Your task to perform on an android device: turn on airplane mode Image 0: 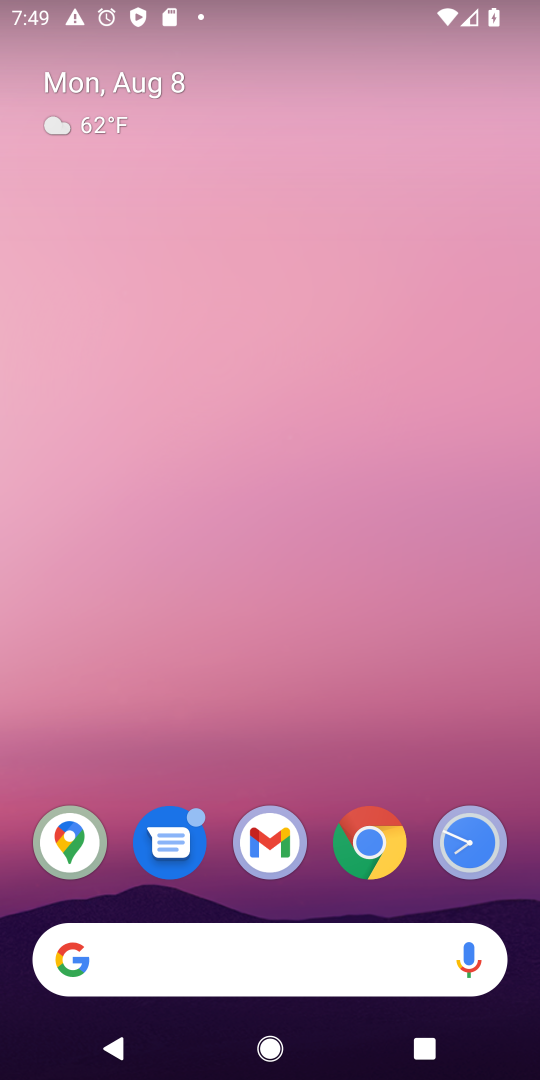
Step 0: click (232, 838)
Your task to perform on an android device: turn on airplane mode Image 1: 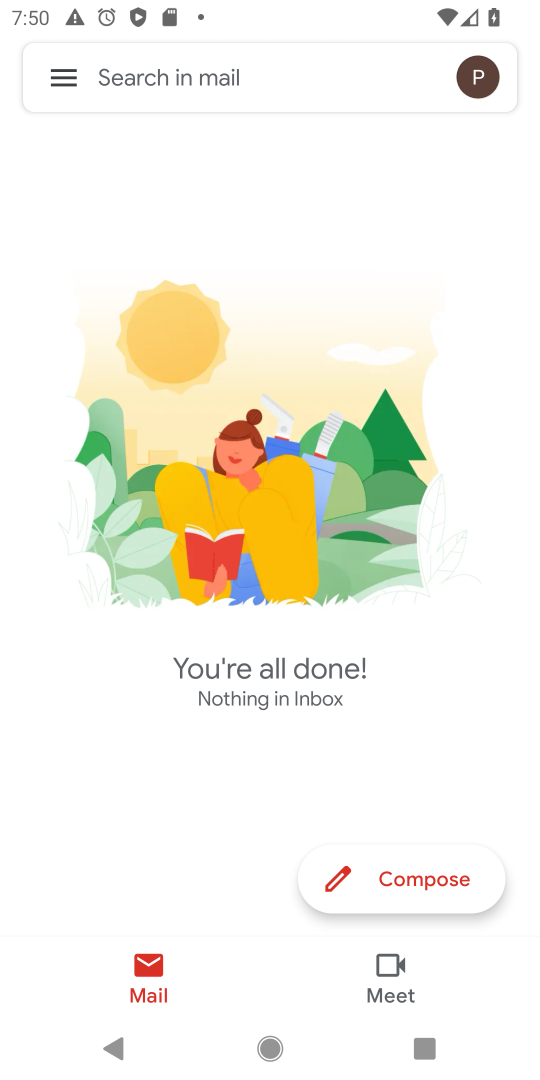
Step 1: click (58, 87)
Your task to perform on an android device: turn on airplane mode Image 2: 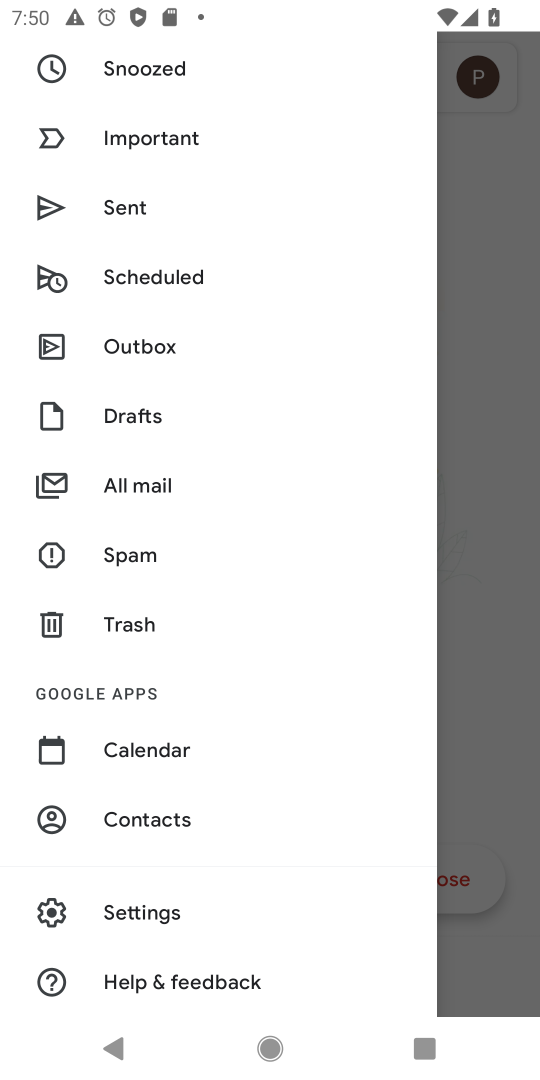
Step 2: press home button
Your task to perform on an android device: turn on airplane mode Image 3: 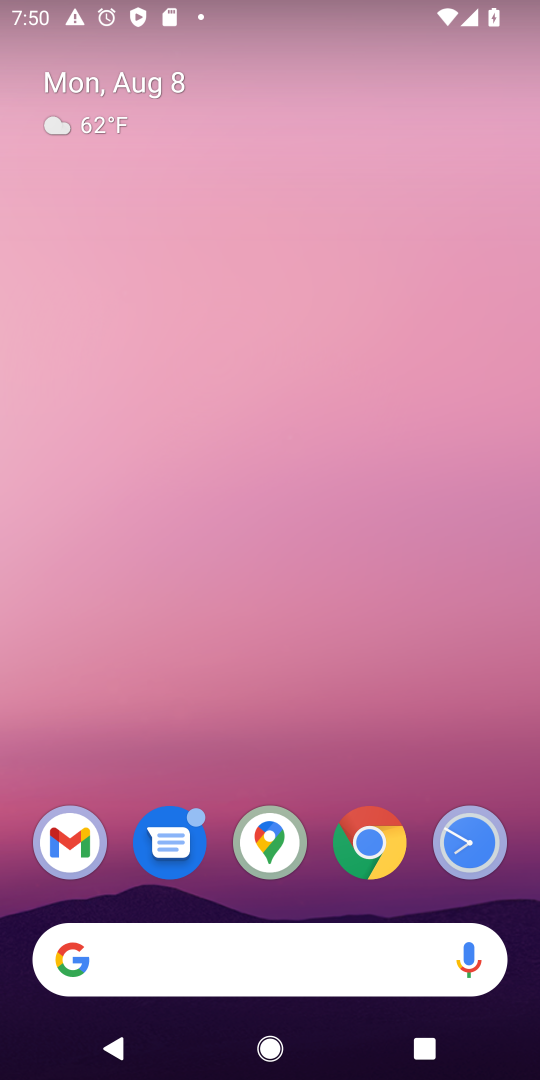
Step 3: drag from (497, 944) to (381, 158)
Your task to perform on an android device: turn on airplane mode Image 4: 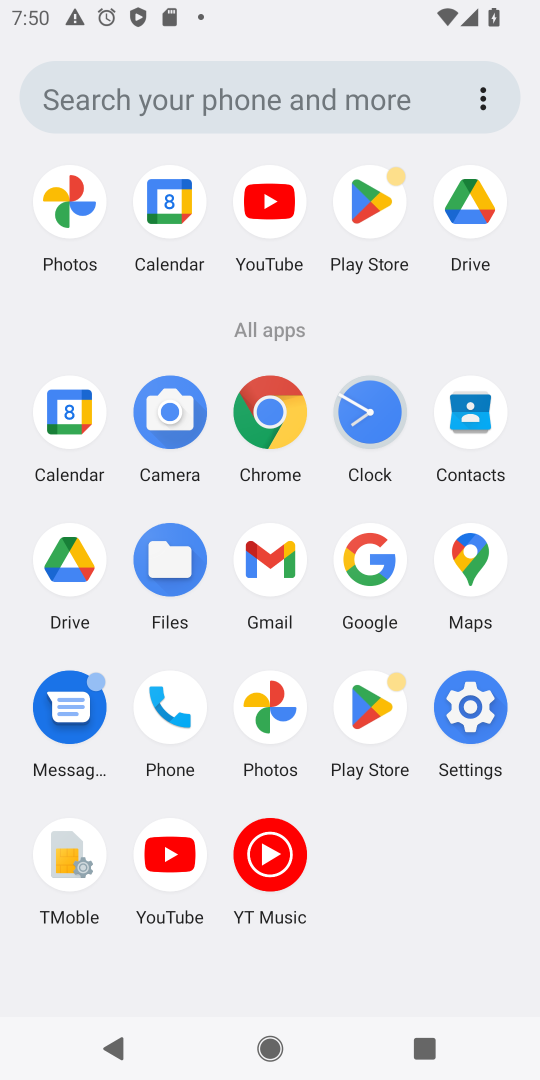
Step 4: click (488, 707)
Your task to perform on an android device: turn on airplane mode Image 5: 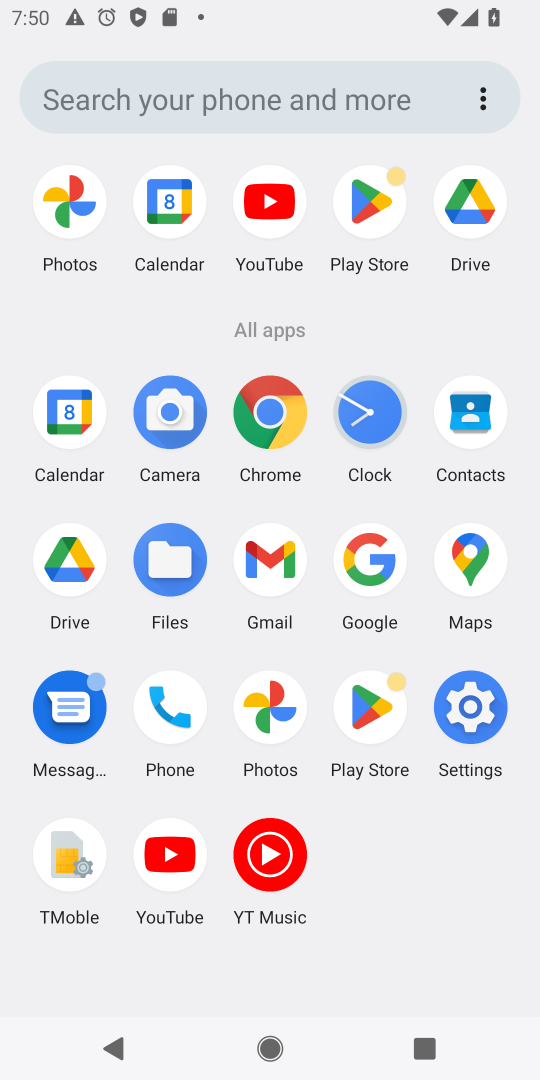
Step 5: click (484, 705)
Your task to perform on an android device: turn on airplane mode Image 6: 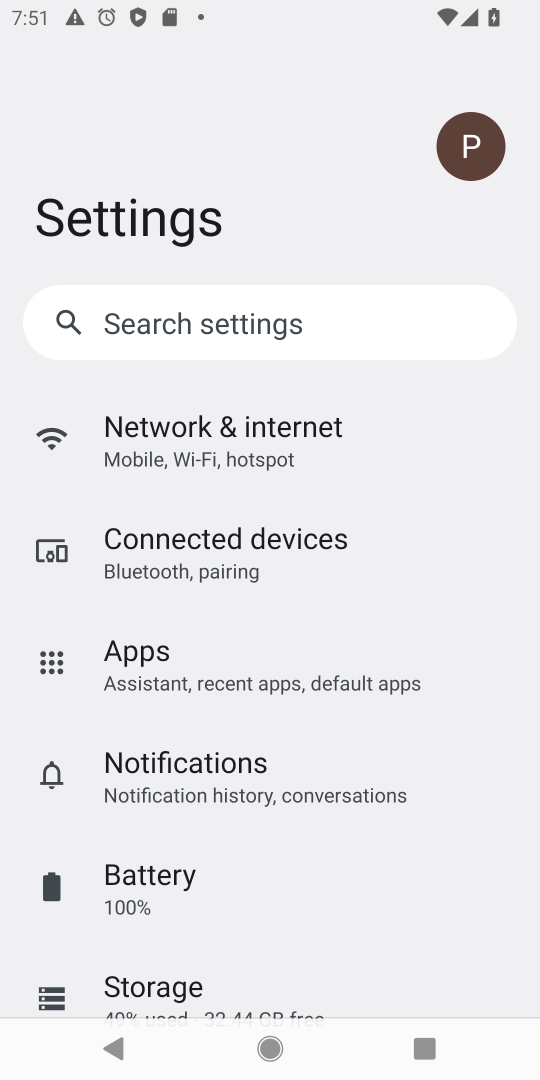
Step 6: click (234, 440)
Your task to perform on an android device: turn on airplane mode Image 7: 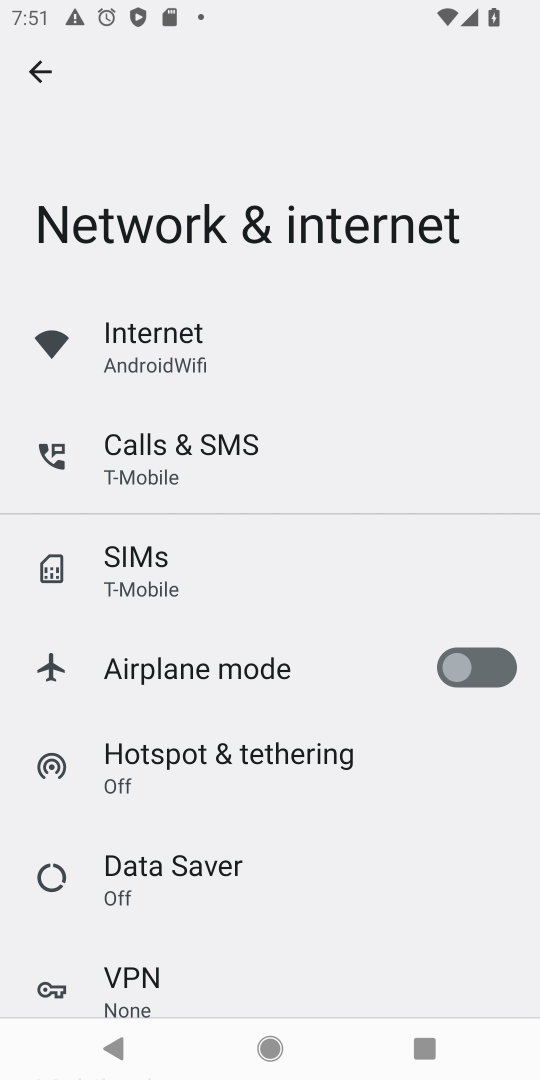
Step 7: click (119, 665)
Your task to perform on an android device: turn on airplane mode Image 8: 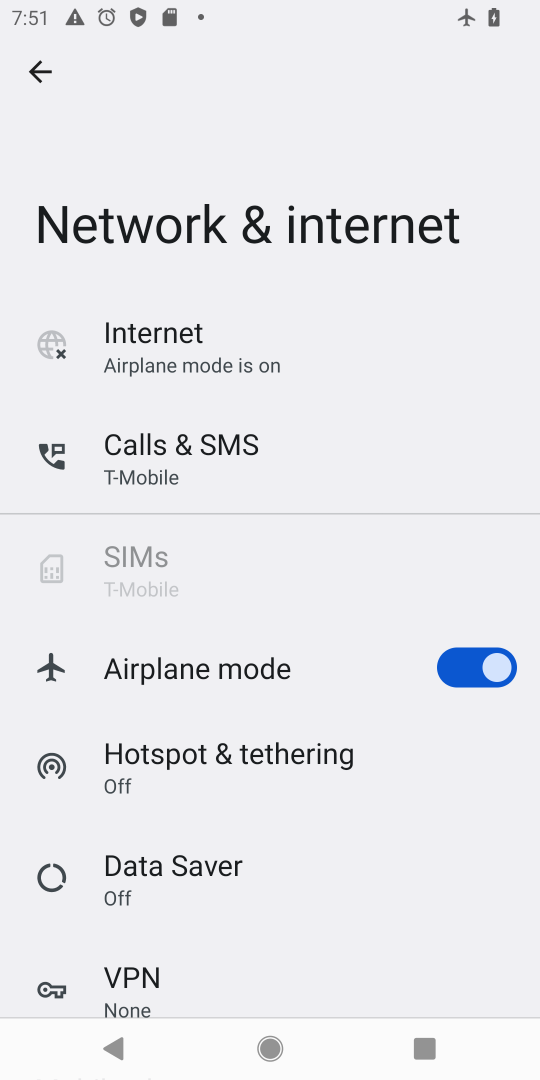
Step 8: task complete